Your task to perform on an android device: When is my next meeting? Image 0: 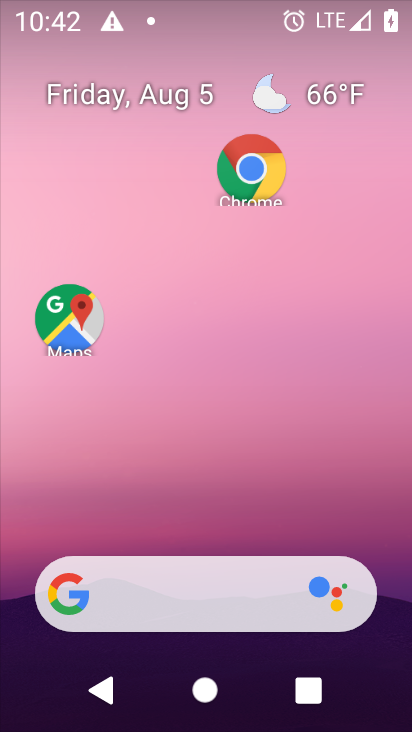
Step 0: drag from (186, 516) to (186, 131)
Your task to perform on an android device: When is my next meeting? Image 1: 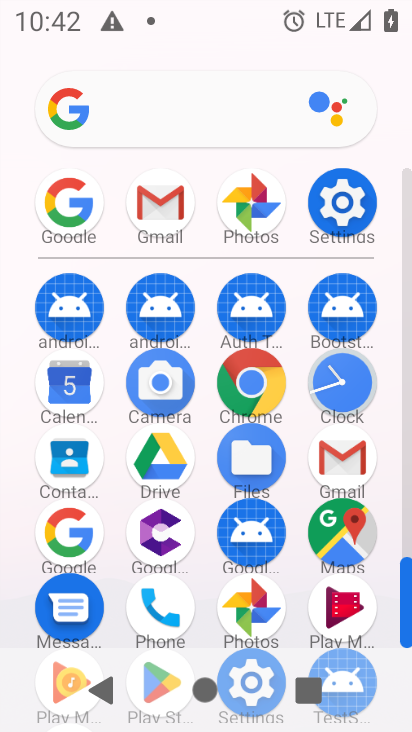
Step 1: click (84, 385)
Your task to perform on an android device: When is my next meeting? Image 2: 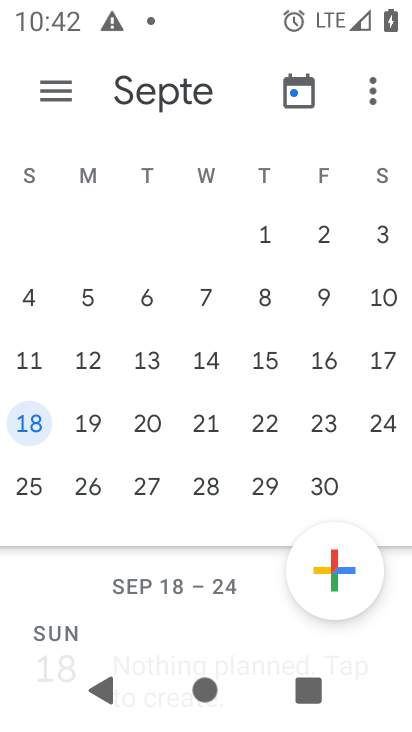
Step 2: drag from (74, 407) to (324, 407)
Your task to perform on an android device: When is my next meeting? Image 3: 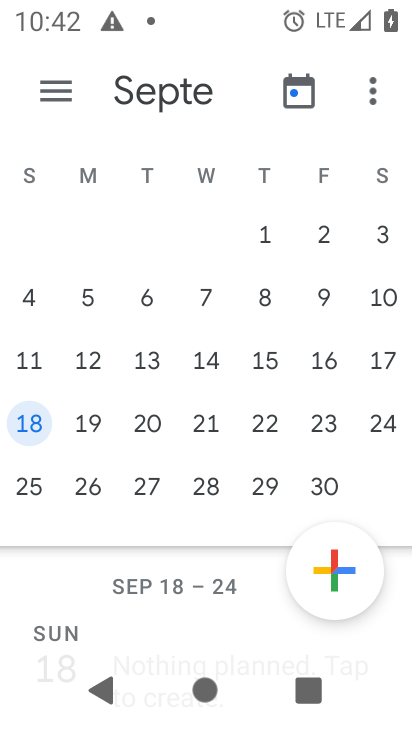
Step 3: drag from (14, 322) to (400, 310)
Your task to perform on an android device: When is my next meeting? Image 4: 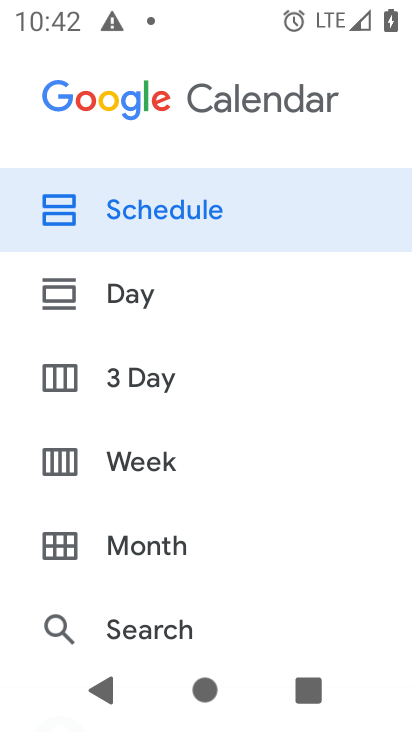
Step 4: click (204, 217)
Your task to perform on an android device: When is my next meeting? Image 5: 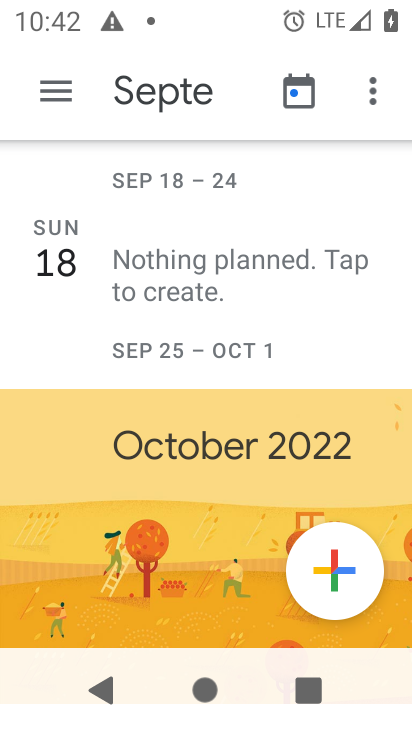
Step 5: click (194, 106)
Your task to perform on an android device: When is my next meeting? Image 6: 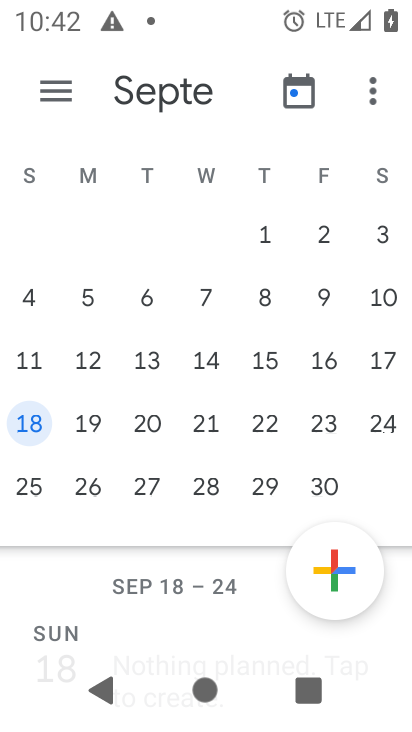
Step 6: drag from (27, 326) to (325, 327)
Your task to perform on an android device: When is my next meeting? Image 7: 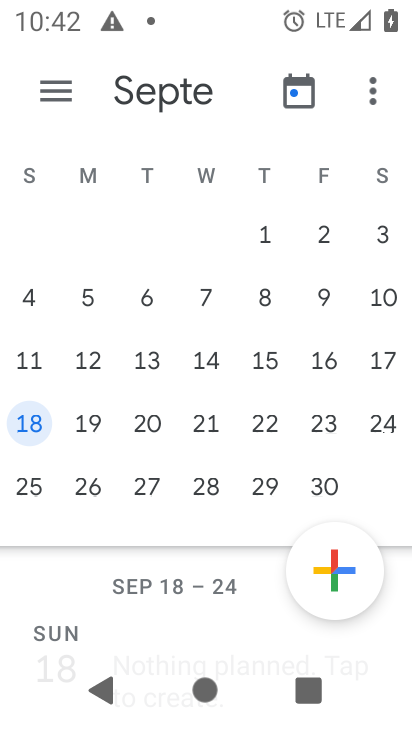
Step 7: drag from (80, 242) to (361, 239)
Your task to perform on an android device: When is my next meeting? Image 8: 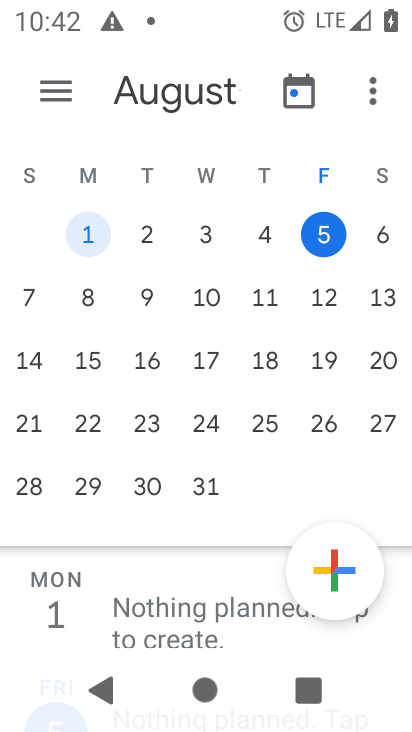
Step 8: click (25, 292)
Your task to perform on an android device: When is my next meeting? Image 9: 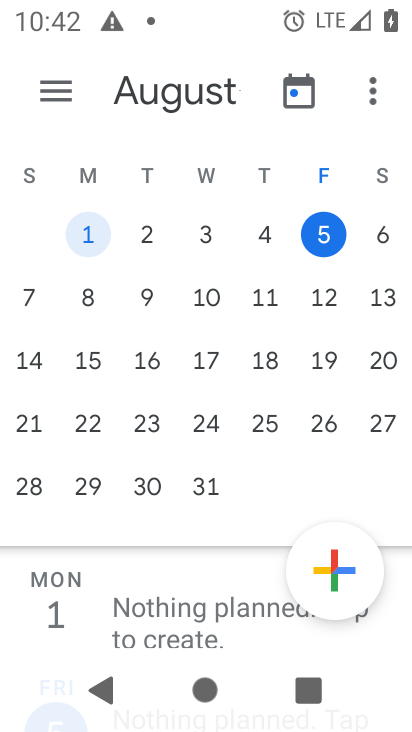
Step 9: click (113, 285)
Your task to perform on an android device: When is my next meeting? Image 10: 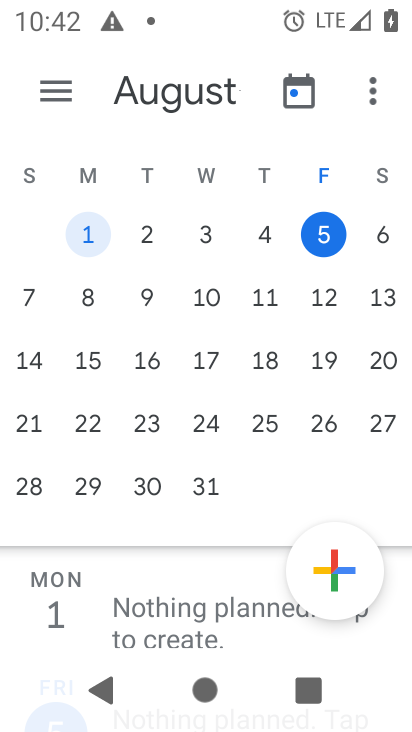
Step 10: click (139, 293)
Your task to perform on an android device: When is my next meeting? Image 11: 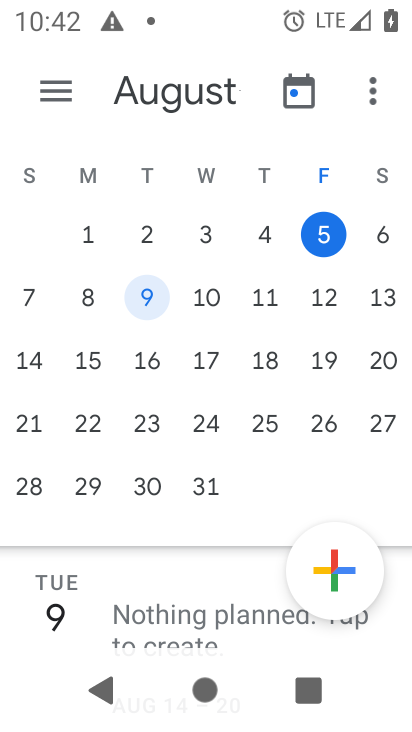
Step 11: task complete